Your task to perform on an android device: change the clock display to analog Image 0: 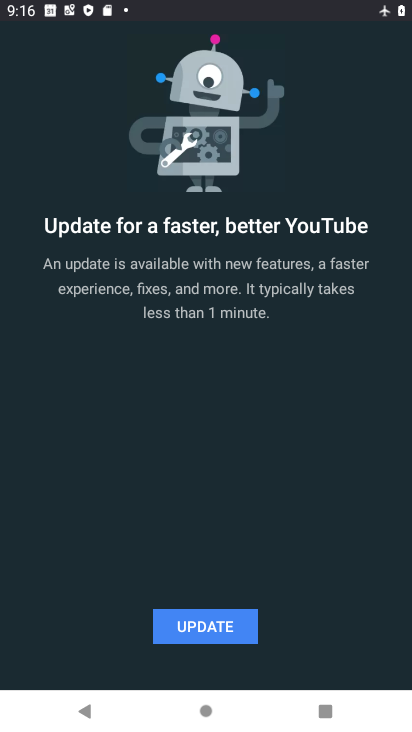
Step 0: press back button
Your task to perform on an android device: change the clock display to analog Image 1: 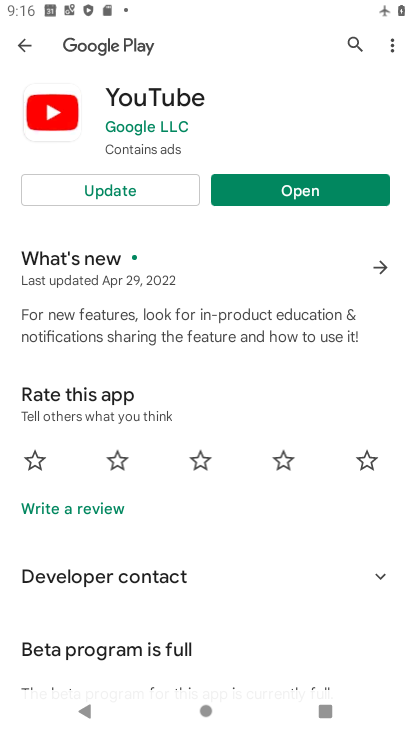
Step 1: press home button
Your task to perform on an android device: change the clock display to analog Image 2: 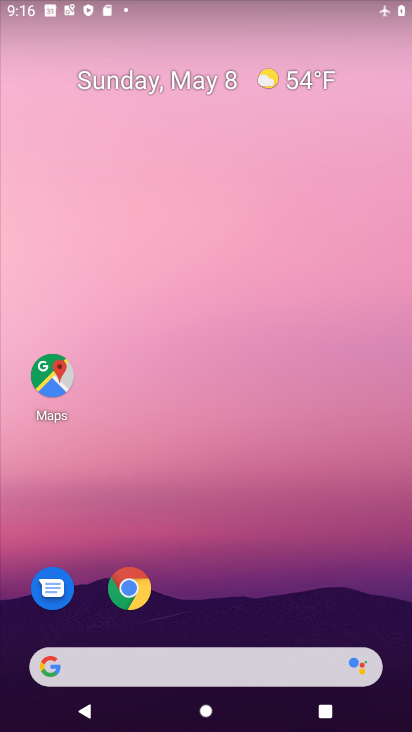
Step 2: drag from (22, 632) to (279, 151)
Your task to perform on an android device: change the clock display to analog Image 3: 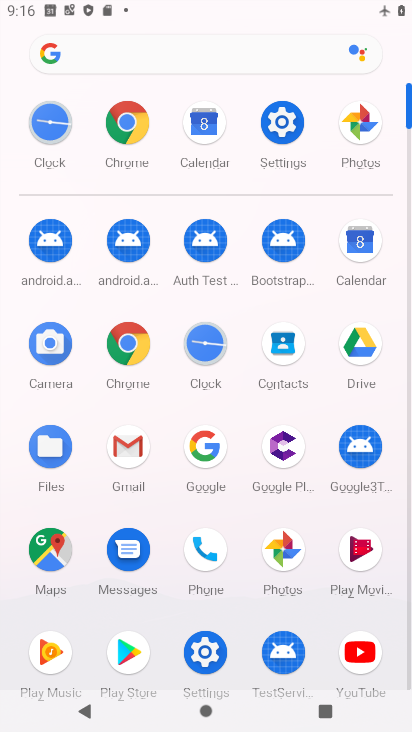
Step 3: click (215, 349)
Your task to perform on an android device: change the clock display to analog Image 4: 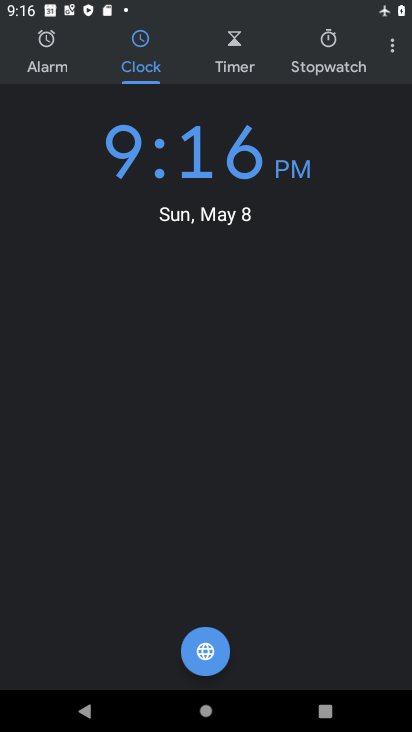
Step 4: click (390, 51)
Your task to perform on an android device: change the clock display to analog Image 5: 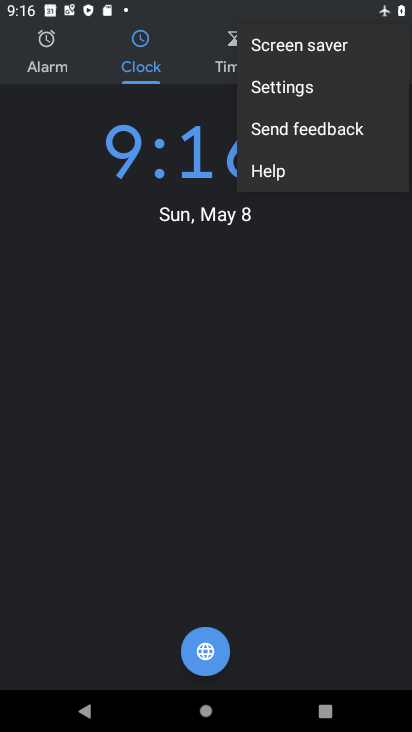
Step 5: click (265, 89)
Your task to perform on an android device: change the clock display to analog Image 6: 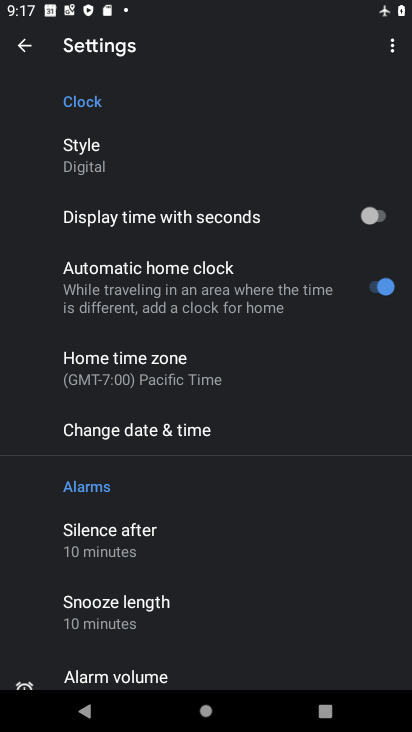
Step 6: click (100, 154)
Your task to perform on an android device: change the clock display to analog Image 7: 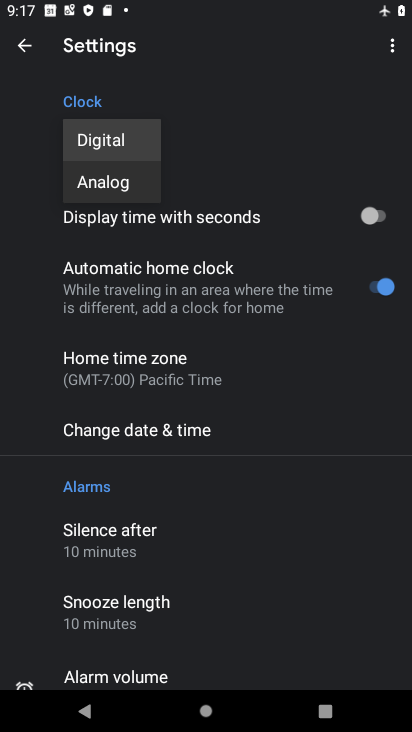
Step 7: click (109, 184)
Your task to perform on an android device: change the clock display to analog Image 8: 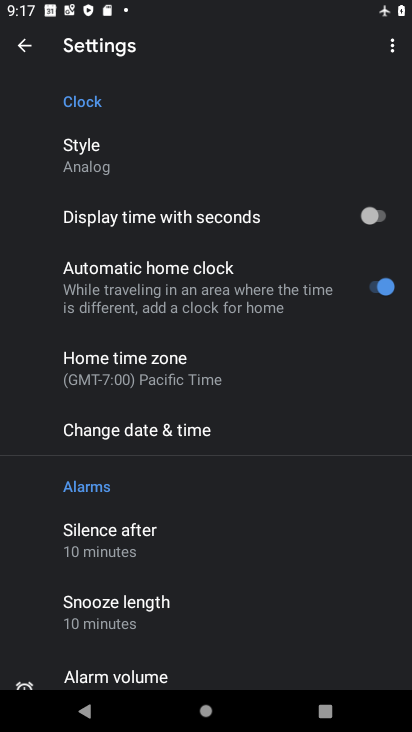
Step 8: task complete